Your task to perform on an android device: What's US dollar exchange rate against the Japanese Yen? Image 0: 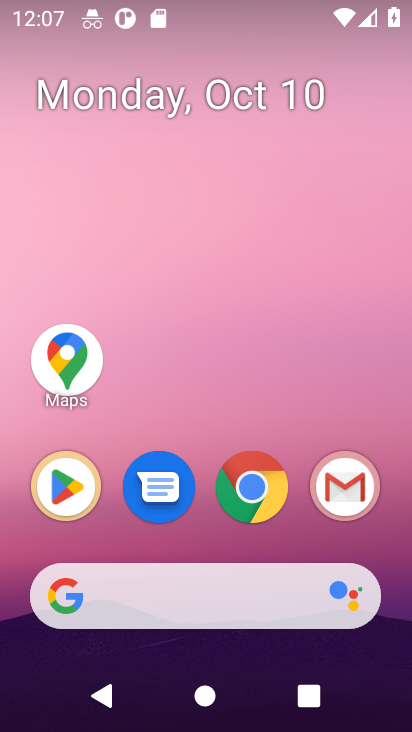
Step 0: click (256, 491)
Your task to perform on an android device: What's US dollar exchange rate against the Japanese Yen? Image 1: 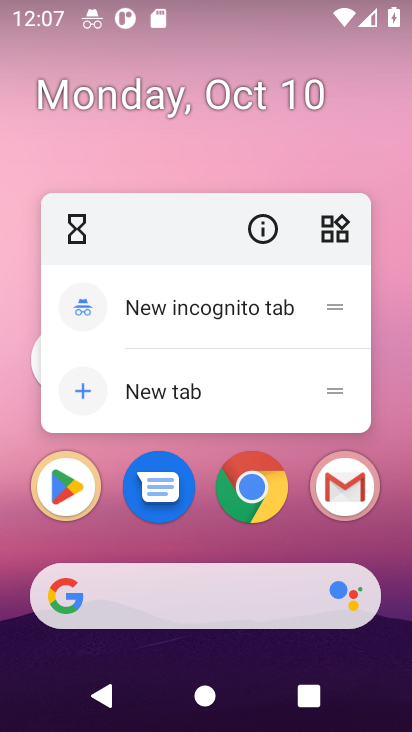
Step 1: click (246, 503)
Your task to perform on an android device: What's US dollar exchange rate against the Japanese Yen? Image 2: 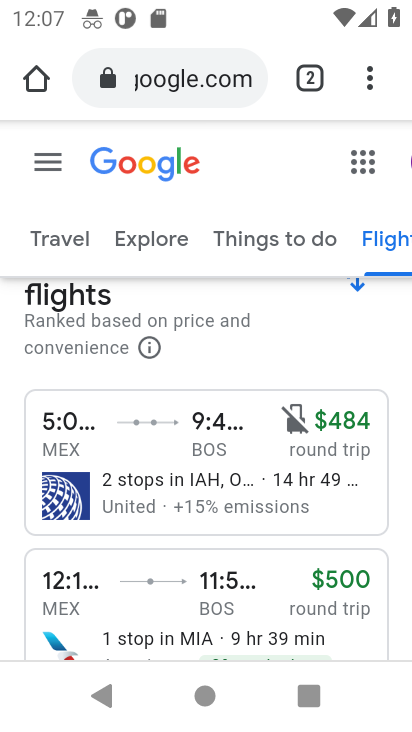
Step 2: click (196, 83)
Your task to perform on an android device: What's US dollar exchange rate against the Japanese Yen? Image 3: 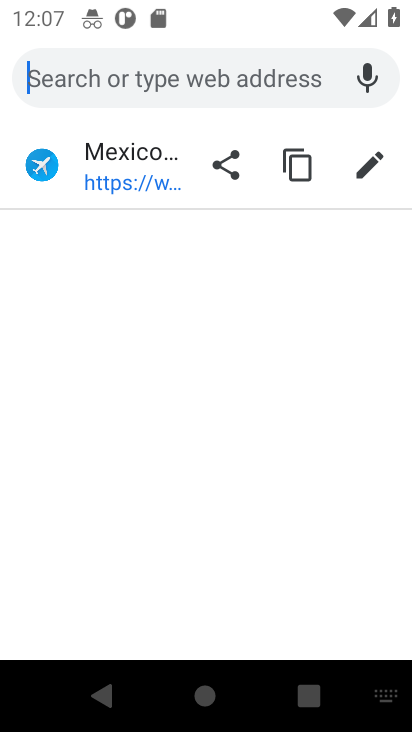
Step 3: type "US dollar exchange rate against the Japanese Yen"
Your task to perform on an android device: What's US dollar exchange rate against the Japanese Yen? Image 4: 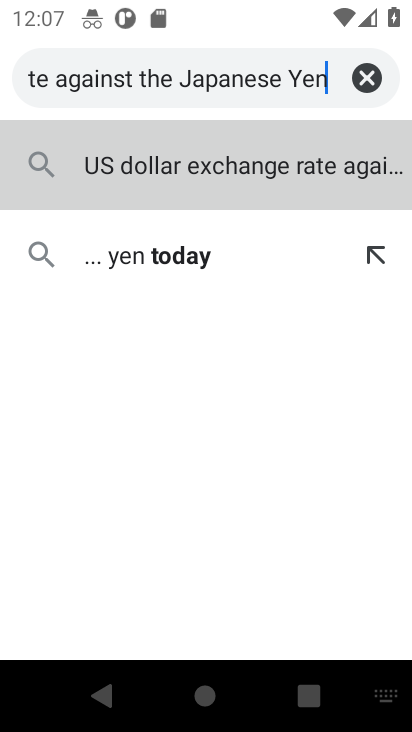
Step 4: press enter
Your task to perform on an android device: What's US dollar exchange rate against the Japanese Yen? Image 5: 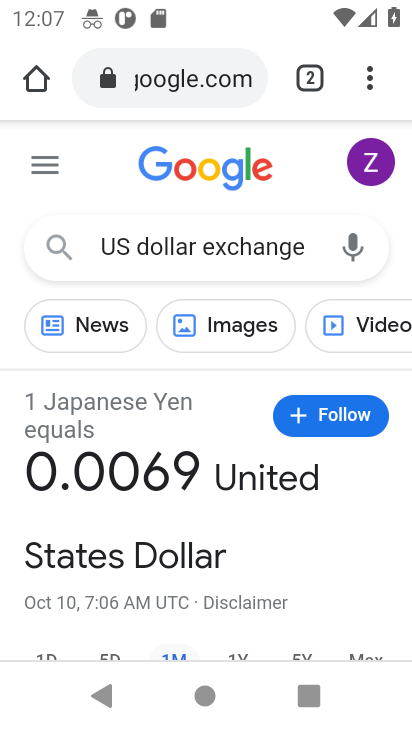
Step 5: drag from (289, 555) to (313, 398)
Your task to perform on an android device: What's US dollar exchange rate against the Japanese Yen? Image 6: 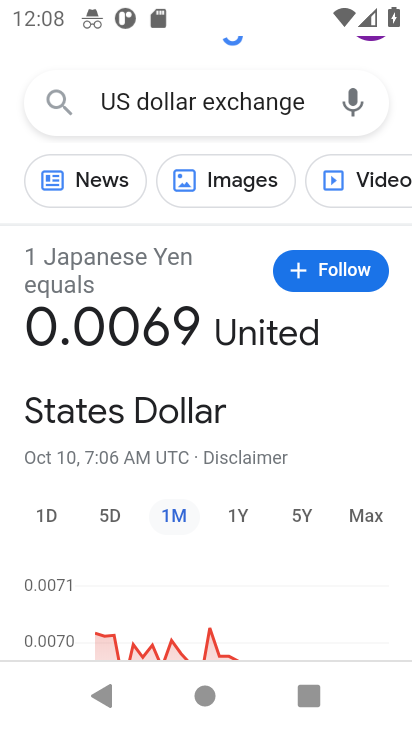
Step 6: click (37, 495)
Your task to perform on an android device: What's US dollar exchange rate against the Japanese Yen? Image 7: 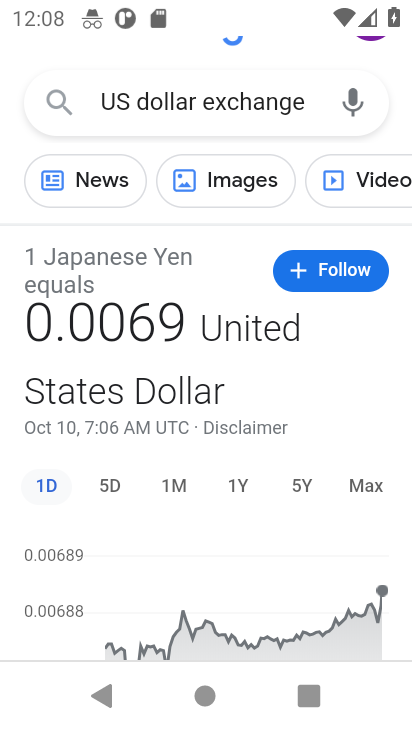
Step 7: click (230, 550)
Your task to perform on an android device: What's US dollar exchange rate against the Japanese Yen? Image 8: 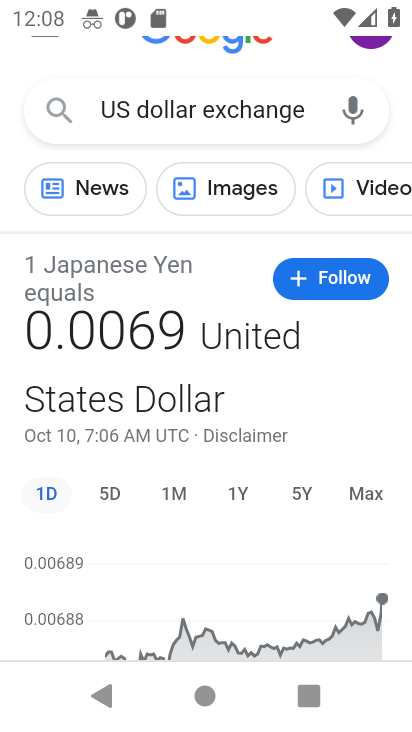
Step 8: task complete